Your task to perform on an android device: Show me productivity apps on the Play Store Image 0: 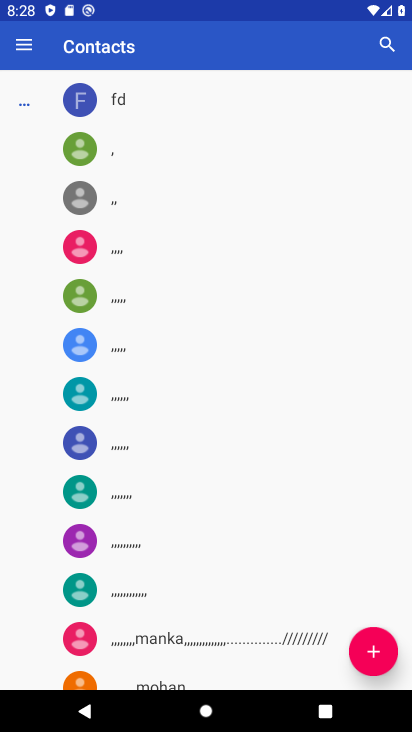
Step 0: press home button
Your task to perform on an android device: Show me productivity apps on the Play Store Image 1: 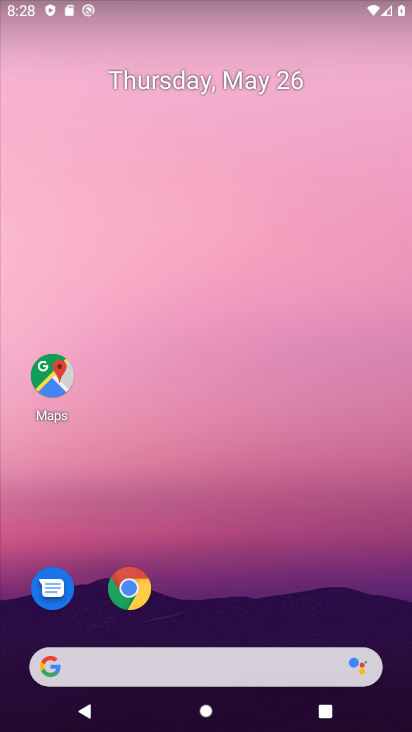
Step 1: drag from (282, 624) to (257, 94)
Your task to perform on an android device: Show me productivity apps on the Play Store Image 2: 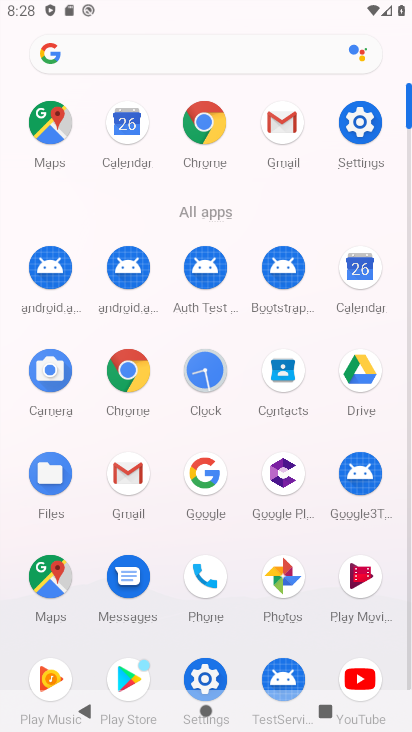
Step 2: click (130, 661)
Your task to perform on an android device: Show me productivity apps on the Play Store Image 3: 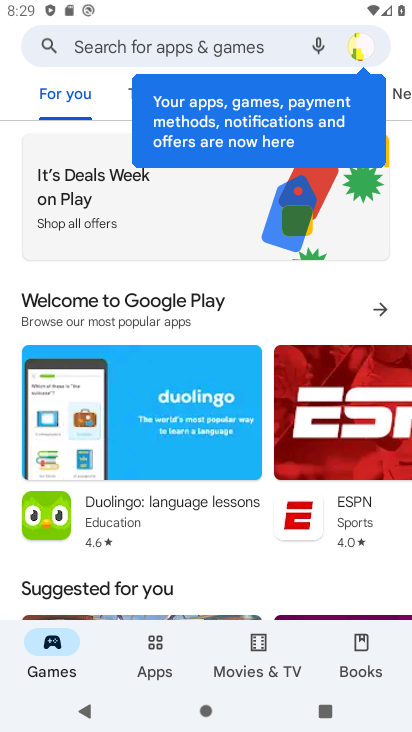
Step 3: click (164, 657)
Your task to perform on an android device: Show me productivity apps on the Play Store Image 4: 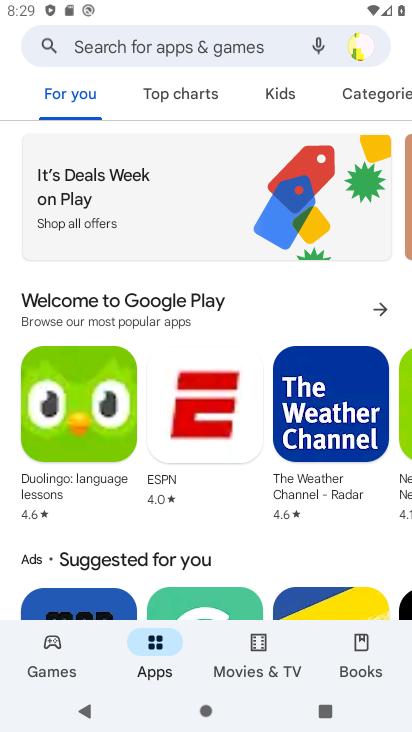
Step 4: click (364, 89)
Your task to perform on an android device: Show me productivity apps on the Play Store Image 5: 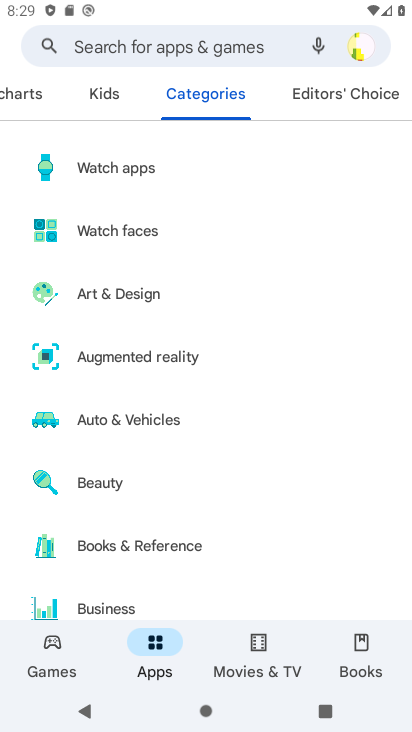
Step 5: drag from (220, 544) to (227, 124)
Your task to perform on an android device: Show me productivity apps on the Play Store Image 6: 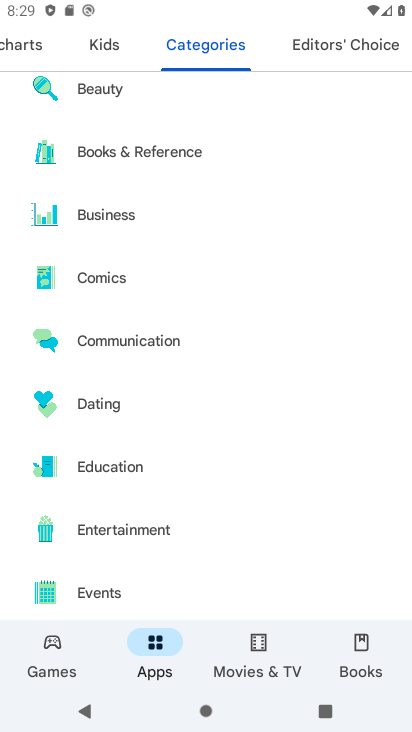
Step 6: drag from (204, 499) to (206, 180)
Your task to perform on an android device: Show me productivity apps on the Play Store Image 7: 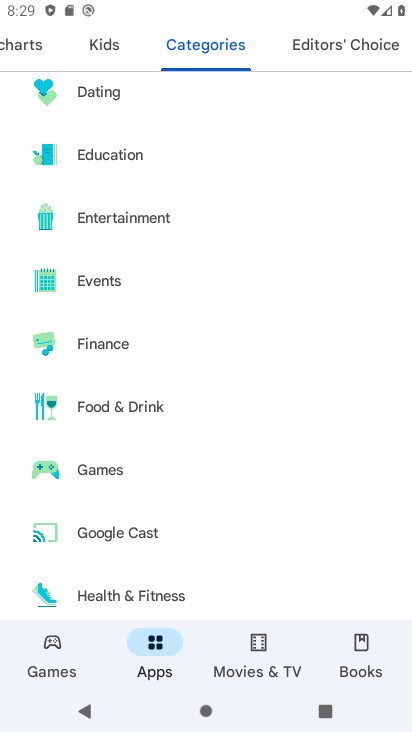
Step 7: drag from (167, 545) to (179, 180)
Your task to perform on an android device: Show me productivity apps on the Play Store Image 8: 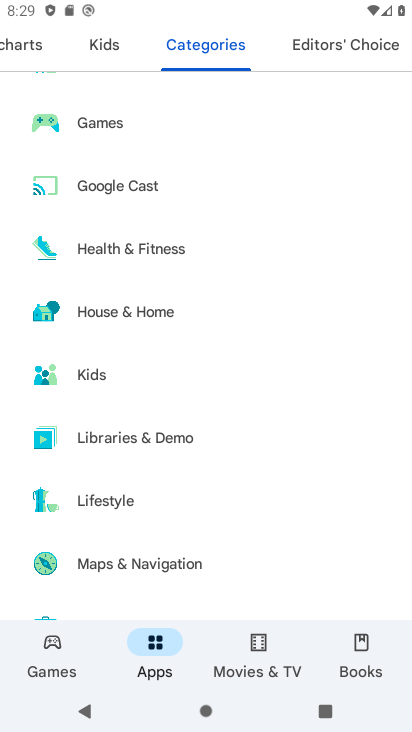
Step 8: drag from (169, 526) to (167, 244)
Your task to perform on an android device: Show me productivity apps on the Play Store Image 9: 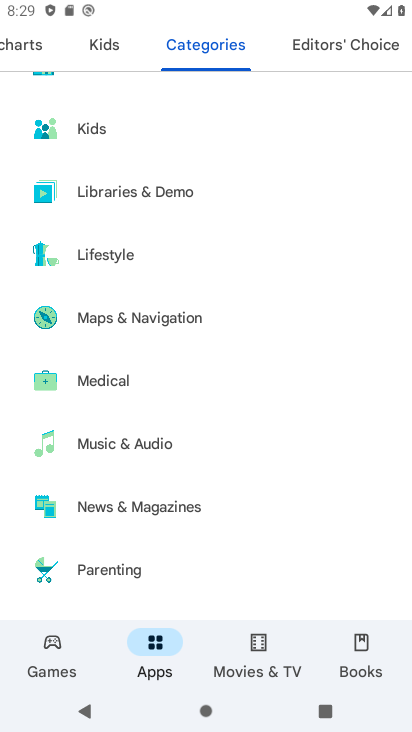
Step 9: drag from (136, 526) to (153, 198)
Your task to perform on an android device: Show me productivity apps on the Play Store Image 10: 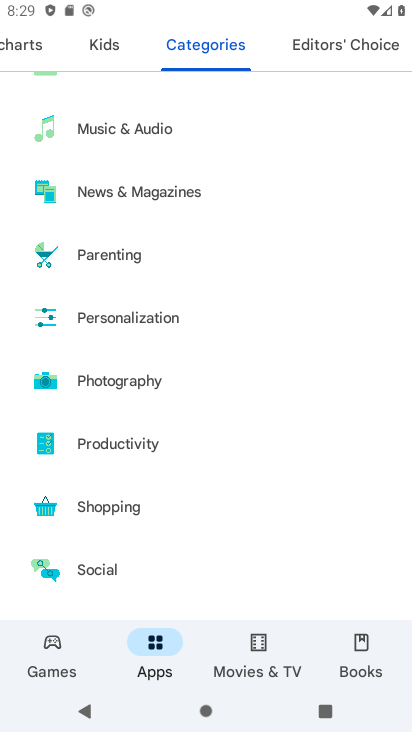
Step 10: click (136, 448)
Your task to perform on an android device: Show me productivity apps on the Play Store Image 11: 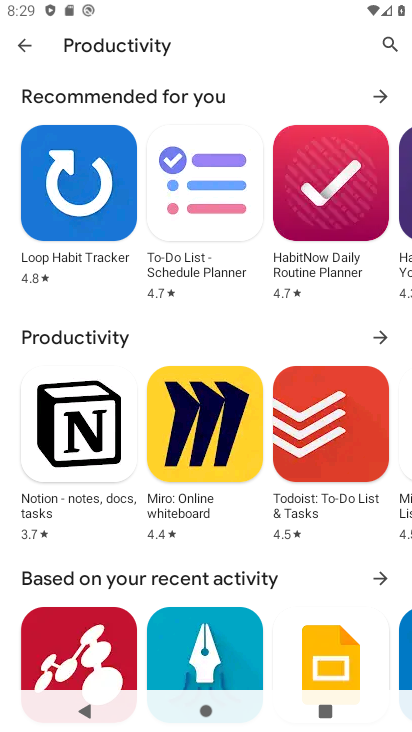
Step 11: task complete